Your task to perform on an android device: allow notifications from all sites in the chrome app Image 0: 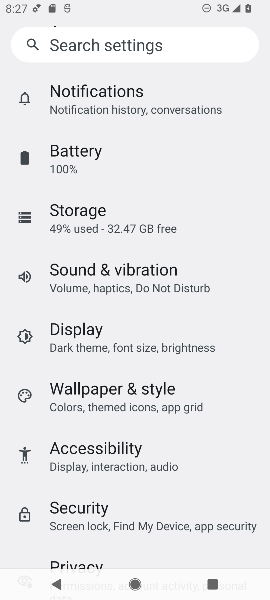
Step 0: press home button
Your task to perform on an android device: allow notifications from all sites in the chrome app Image 1: 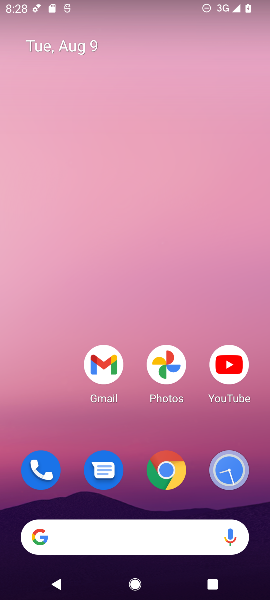
Step 1: click (166, 468)
Your task to perform on an android device: allow notifications from all sites in the chrome app Image 2: 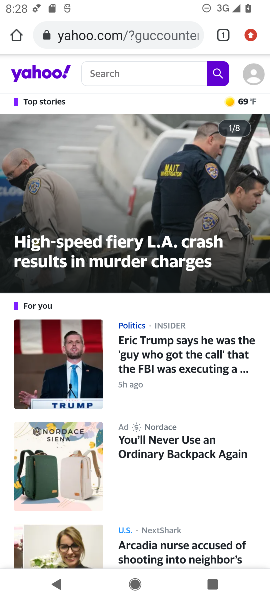
Step 2: click (252, 35)
Your task to perform on an android device: allow notifications from all sites in the chrome app Image 3: 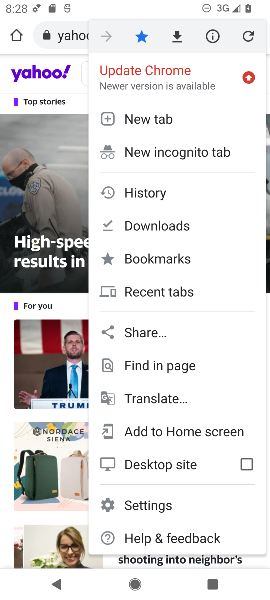
Step 3: click (138, 506)
Your task to perform on an android device: allow notifications from all sites in the chrome app Image 4: 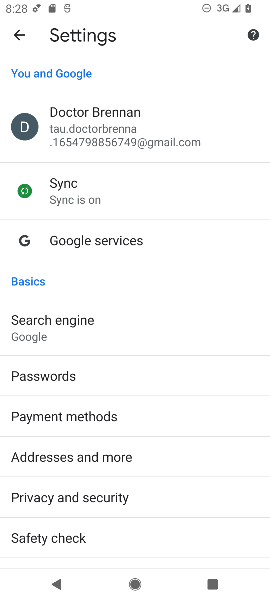
Step 4: drag from (121, 428) to (192, 223)
Your task to perform on an android device: allow notifications from all sites in the chrome app Image 5: 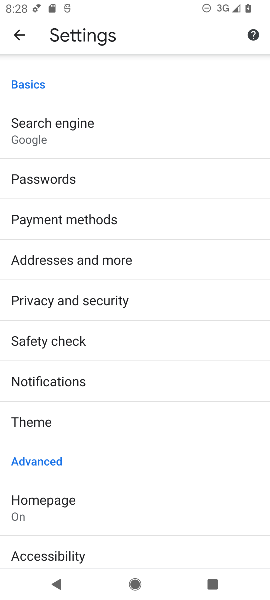
Step 5: drag from (95, 424) to (158, 335)
Your task to perform on an android device: allow notifications from all sites in the chrome app Image 6: 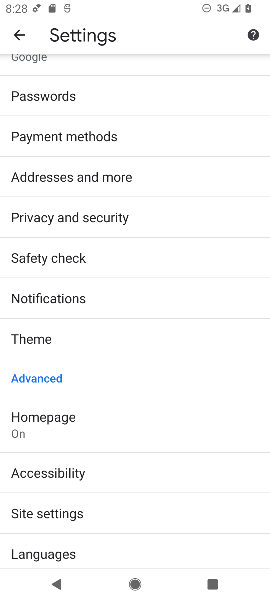
Step 6: click (62, 299)
Your task to perform on an android device: allow notifications from all sites in the chrome app Image 7: 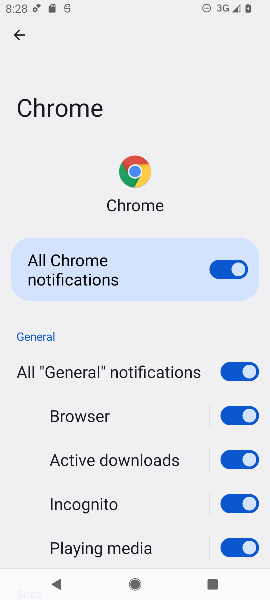
Step 7: task complete